Your task to perform on an android device: open app "Lyft - Rideshare, Bikes, Scooters & Transit" (install if not already installed) and go to login screen Image 0: 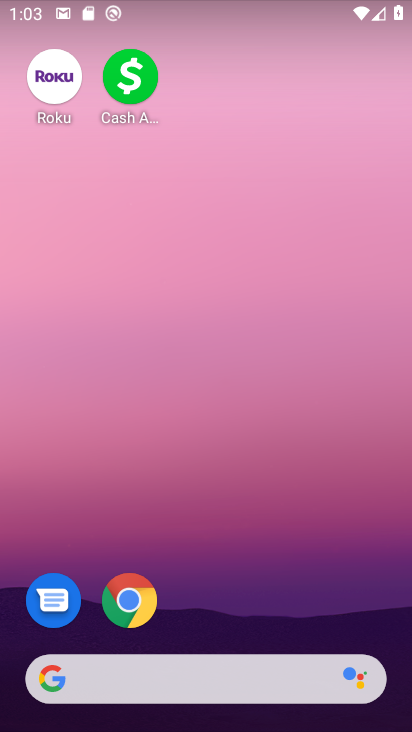
Step 0: drag from (244, 251) to (296, 80)
Your task to perform on an android device: open app "Lyft - Rideshare, Bikes, Scooters & Transit" (install if not already installed) and go to login screen Image 1: 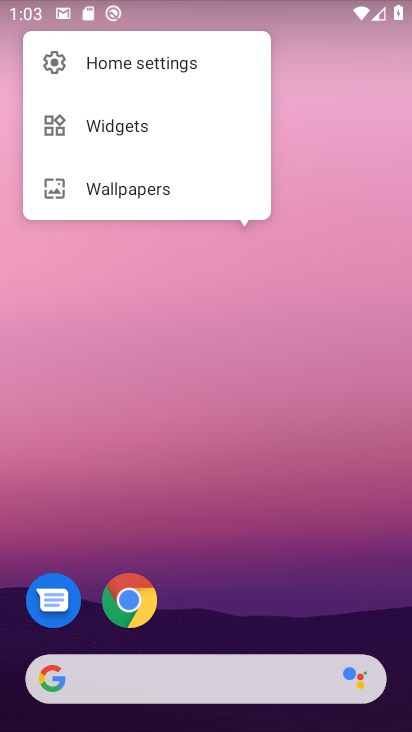
Step 1: click (270, 614)
Your task to perform on an android device: open app "Lyft - Rideshare, Bikes, Scooters & Transit" (install if not already installed) and go to login screen Image 2: 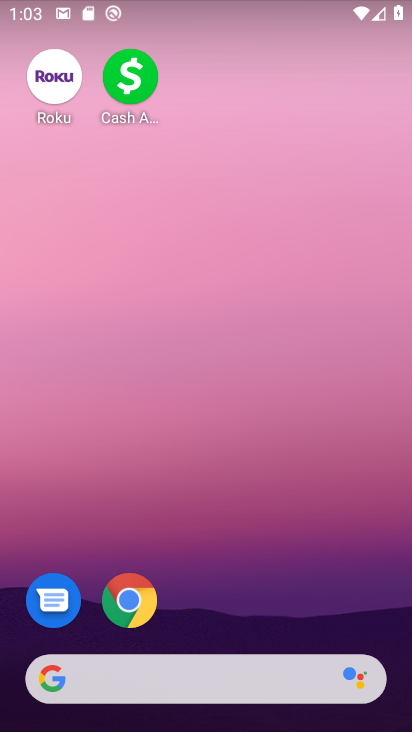
Step 2: drag from (270, 614) to (265, 109)
Your task to perform on an android device: open app "Lyft - Rideshare, Bikes, Scooters & Transit" (install if not already installed) and go to login screen Image 3: 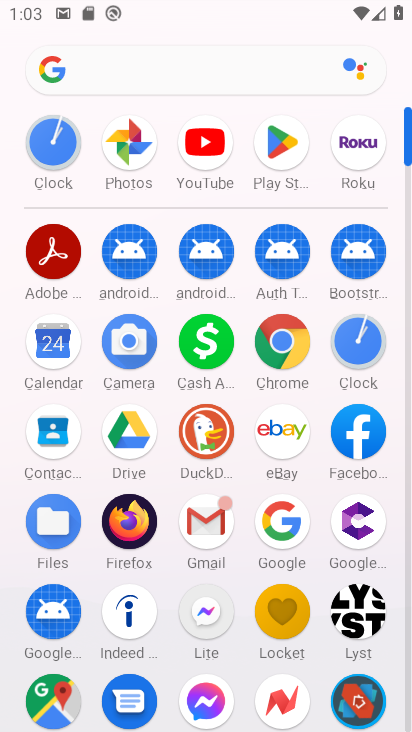
Step 3: click (279, 173)
Your task to perform on an android device: open app "Lyft - Rideshare, Bikes, Scooters & Transit" (install if not already installed) and go to login screen Image 4: 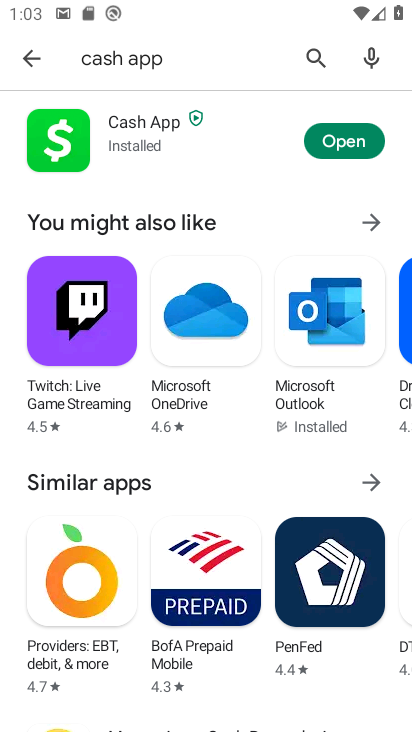
Step 4: click (323, 74)
Your task to perform on an android device: open app "Lyft - Rideshare, Bikes, Scooters & Transit" (install if not already installed) and go to login screen Image 5: 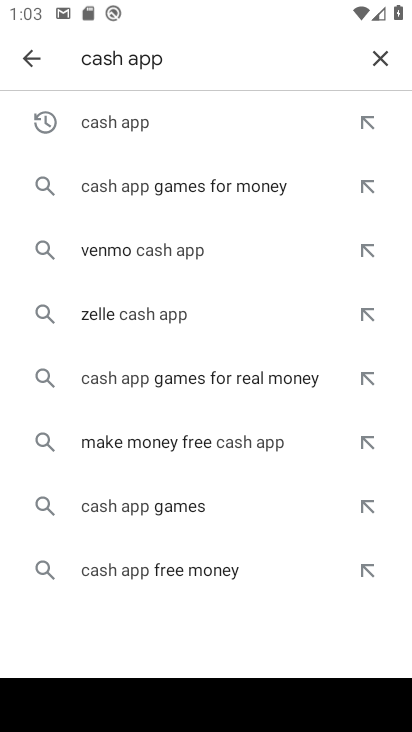
Step 5: click (377, 61)
Your task to perform on an android device: open app "Lyft - Rideshare, Bikes, Scooters & Transit" (install if not already installed) and go to login screen Image 6: 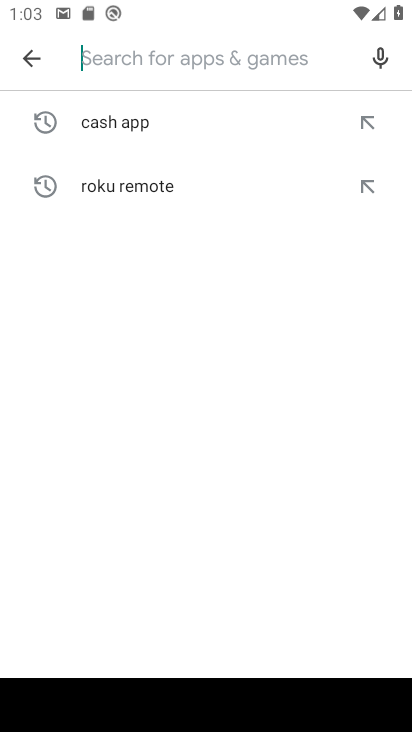
Step 6: type "lyst"
Your task to perform on an android device: open app "Lyft - Rideshare, Bikes, Scooters & Transit" (install if not already installed) and go to login screen Image 7: 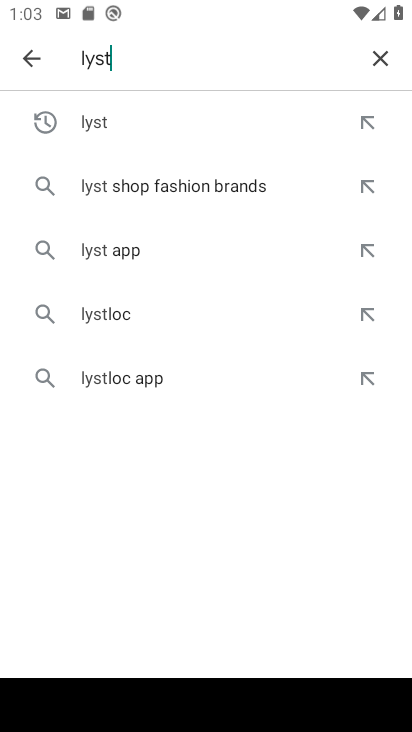
Step 7: click (198, 115)
Your task to perform on an android device: open app "Lyft - Rideshare, Bikes, Scooters & Transit" (install if not already installed) and go to login screen Image 8: 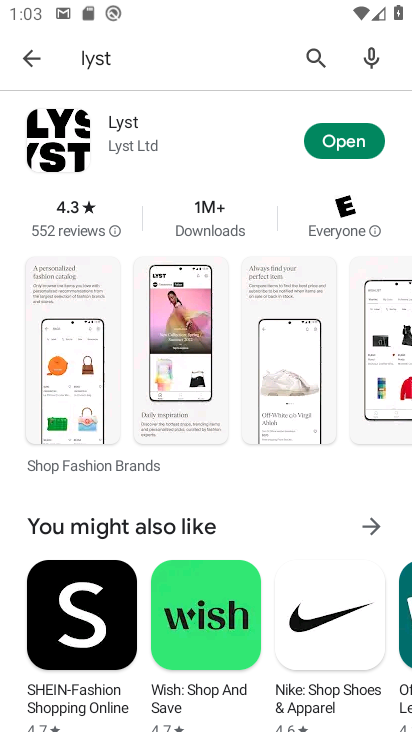
Step 8: click (342, 147)
Your task to perform on an android device: open app "Lyft - Rideshare, Bikes, Scooters & Transit" (install if not already installed) and go to login screen Image 9: 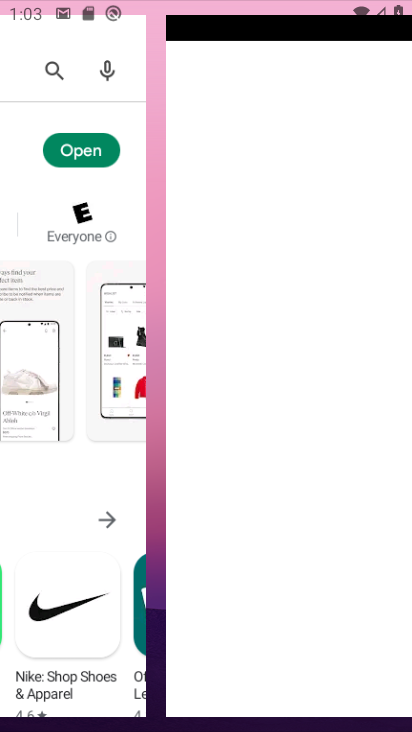
Step 9: task complete